Your task to perform on an android device: turn on showing notifications on the lock screen Image 0: 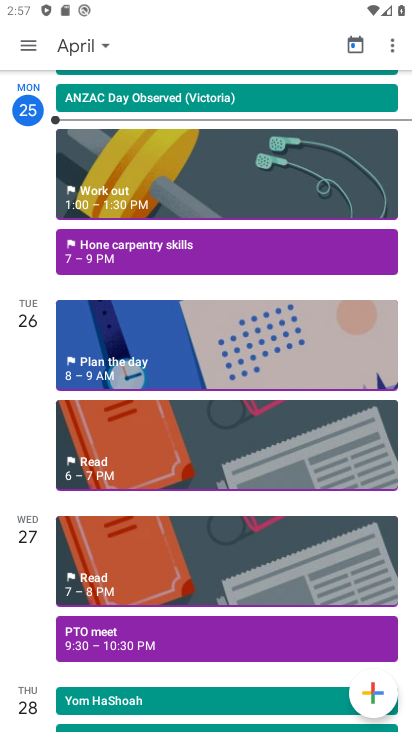
Step 0: press home button
Your task to perform on an android device: turn on showing notifications on the lock screen Image 1: 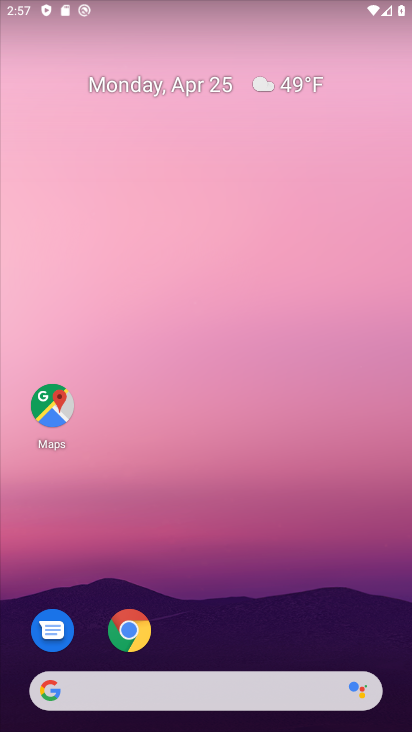
Step 1: drag from (292, 607) to (262, 47)
Your task to perform on an android device: turn on showing notifications on the lock screen Image 2: 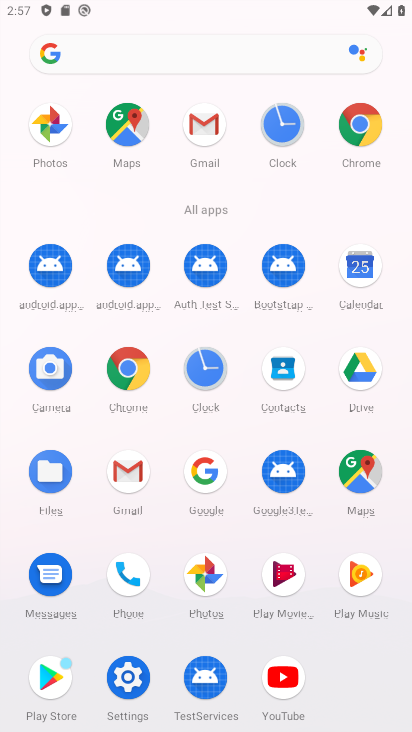
Step 2: click (130, 661)
Your task to perform on an android device: turn on showing notifications on the lock screen Image 3: 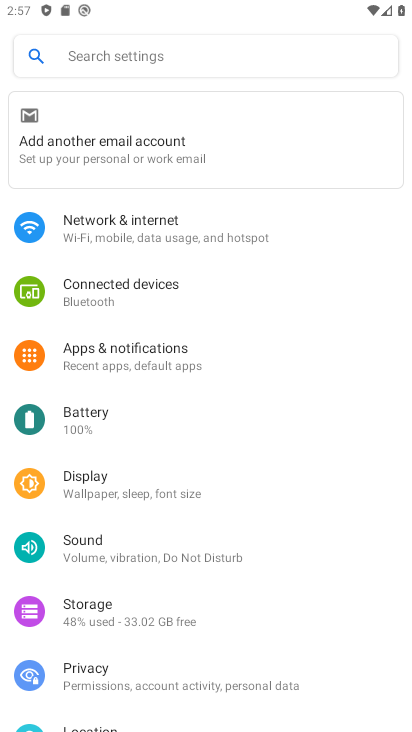
Step 3: click (187, 347)
Your task to perform on an android device: turn on showing notifications on the lock screen Image 4: 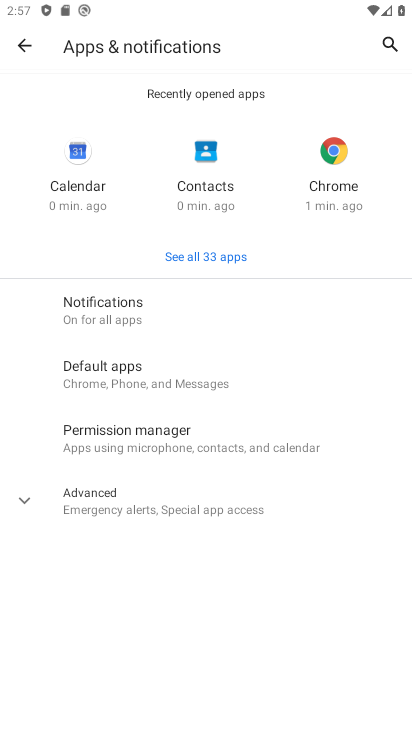
Step 4: click (132, 307)
Your task to perform on an android device: turn on showing notifications on the lock screen Image 5: 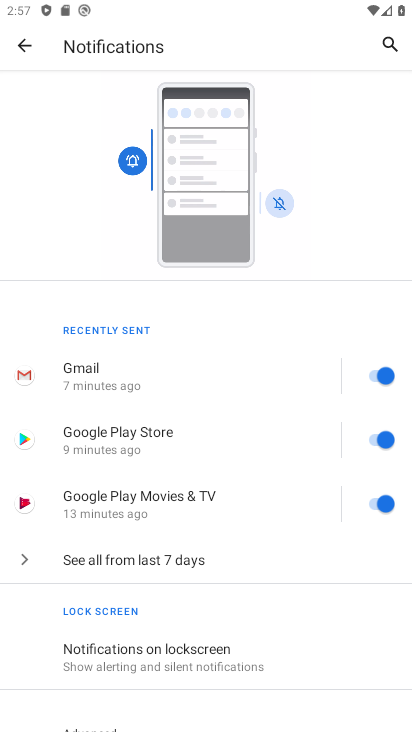
Step 5: click (186, 634)
Your task to perform on an android device: turn on showing notifications on the lock screen Image 6: 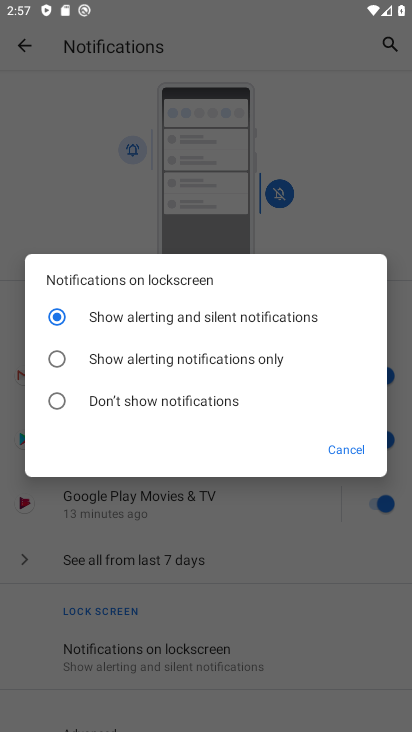
Step 6: click (344, 438)
Your task to perform on an android device: turn on showing notifications on the lock screen Image 7: 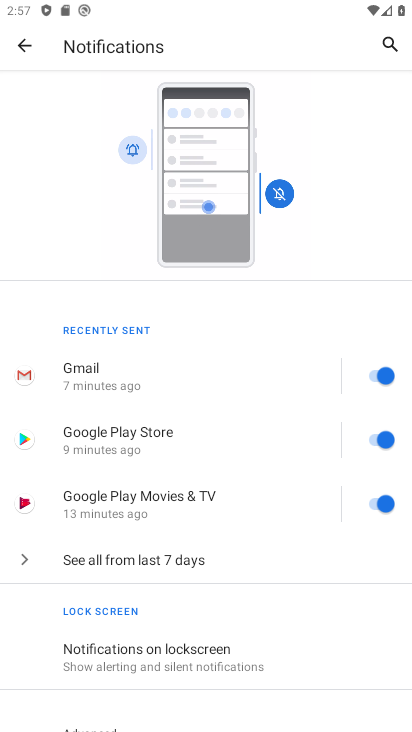
Step 7: task complete